Your task to perform on an android device: What is the recent news? Image 0: 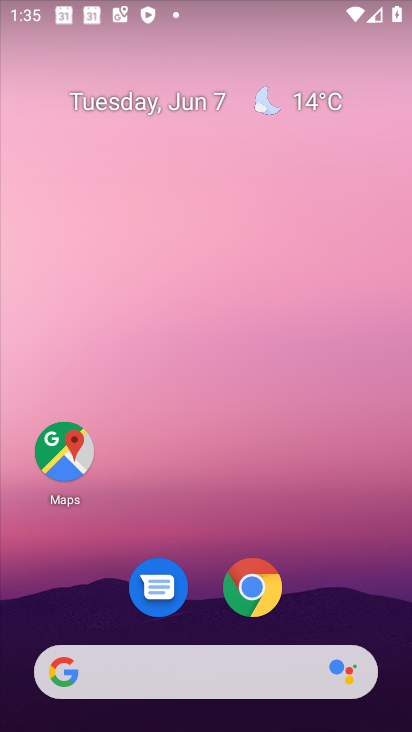
Step 0: drag from (213, 643) to (272, 233)
Your task to perform on an android device: What is the recent news? Image 1: 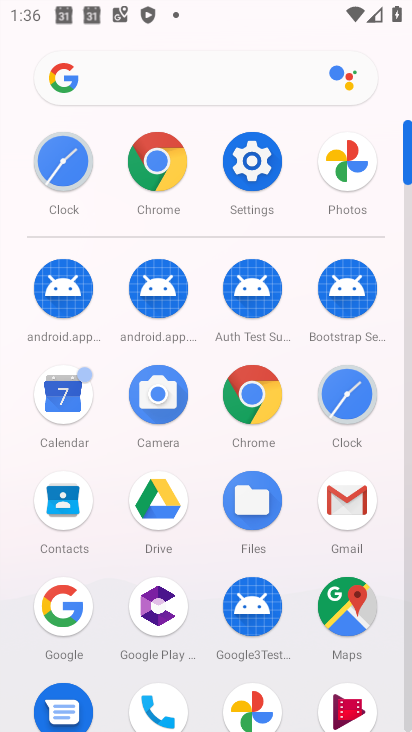
Step 1: click (55, 609)
Your task to perform on an android device: What is the recent news? Image 2: 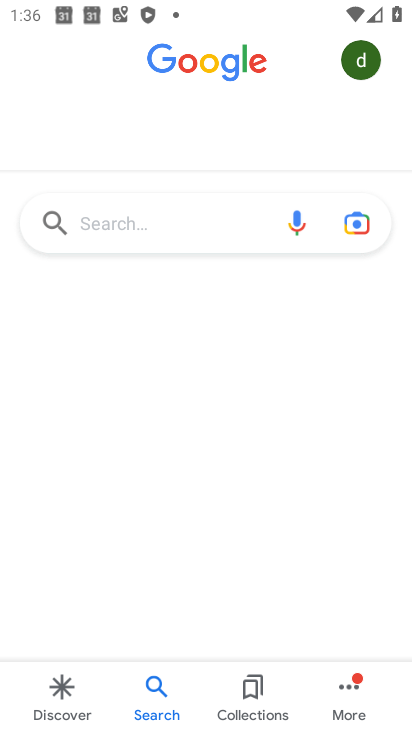
Step 2: click (160, 228)
Your task to perform on an android device: What is the recent news? Image 3: 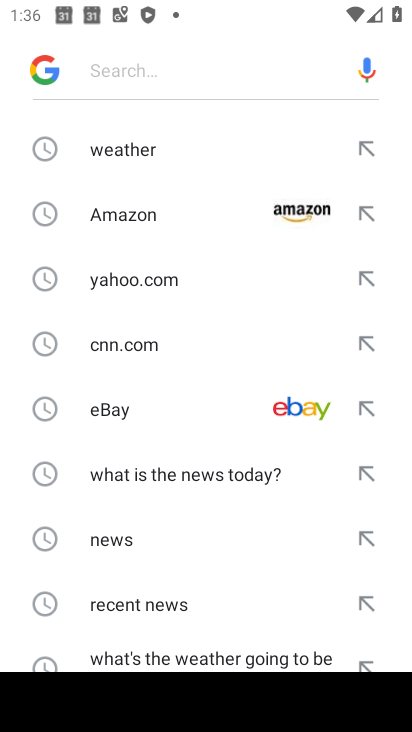
Step 3: click (211, 542)
Your task to perform on an android device: What is the recent news? Image 4: 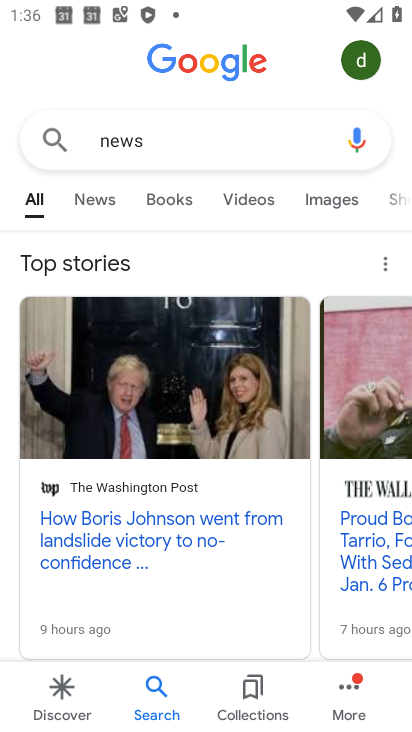
Step 4: click (104, 213)
Your task to perform on an android device: What is the recent news? Image 5: 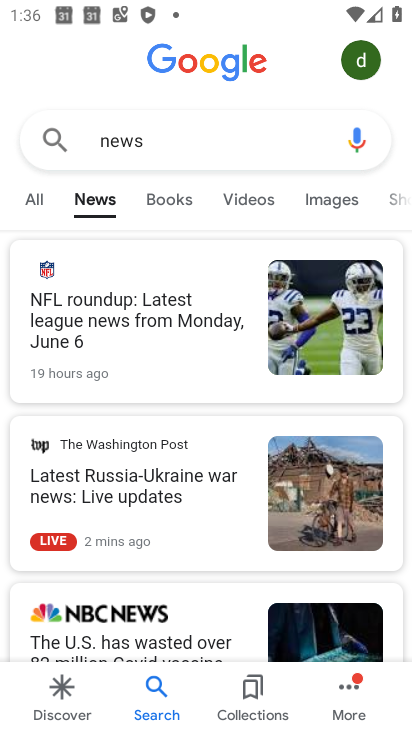
Step 5: task complete